Your task to perform on an android device: choose inbox layout in the gmail app Image 0: 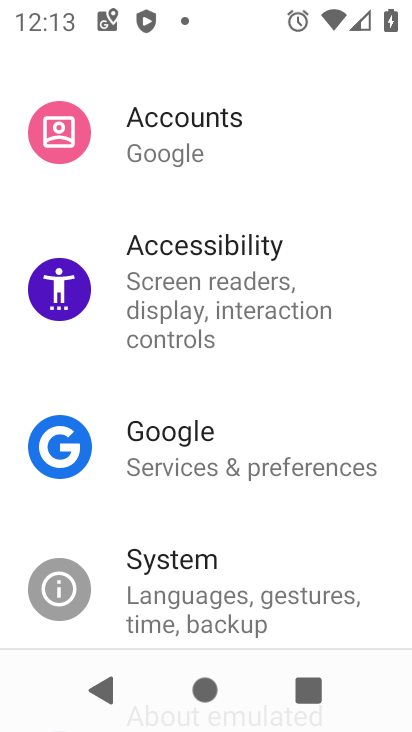
Step 0: press home button
Your task to perform on an android device: choose inbox layout in the gmail app Image 1: 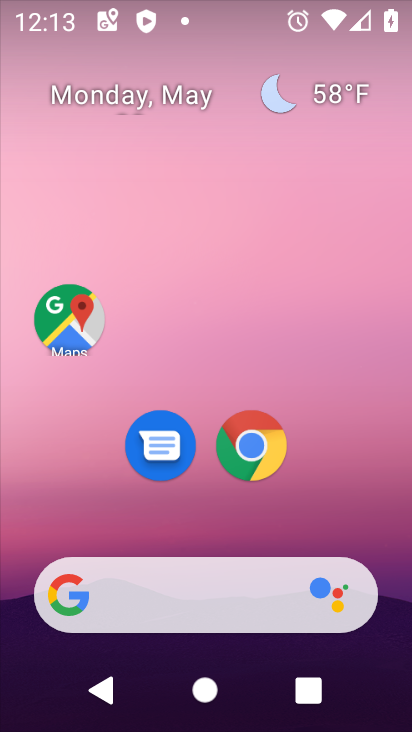
Step 1: drag from (200, 534) to (221, 17)
Your task to perform on an android device: choose inbox layout in the gmail app Image 2: 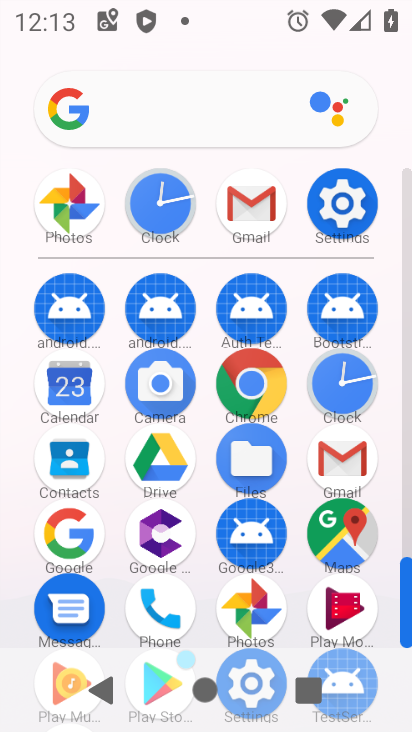
Step 2: click (246, 191)
Your task to perform on an android device: choose inbox layout in the gmail app Image 3: 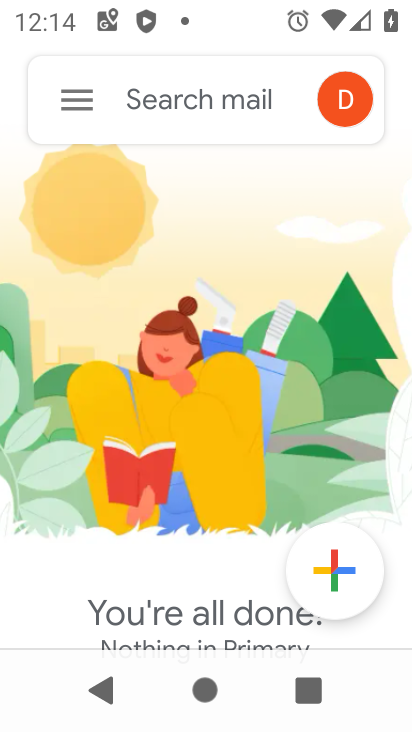
Step 3: click (83, 103)
Your task to perform on an android device: choose inbox layout in the gmail app Image 4: 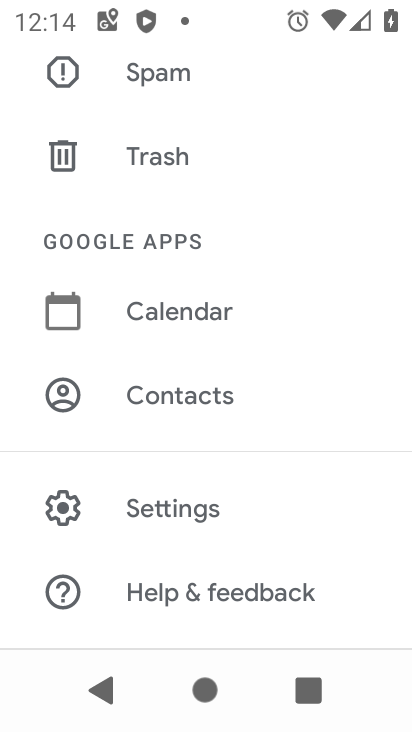
Step 4: click (115, 504)
Your task to perform on an android device: choose inbox layout in the gmail app Image 5: 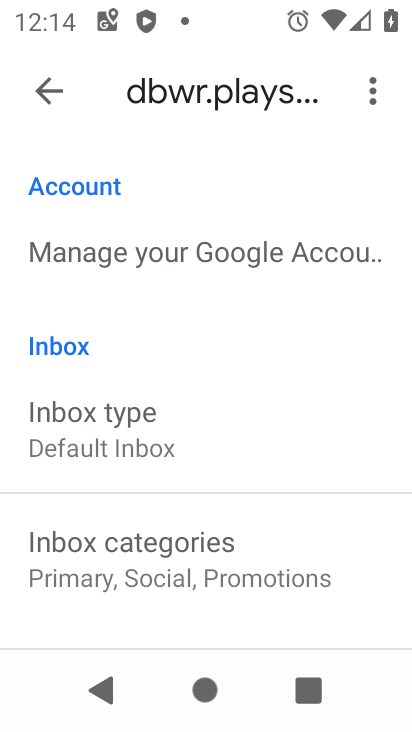
Step 5: click (201, 437)
Your task to perform on an android device: choose inbox layout in the gmail app Image 6: 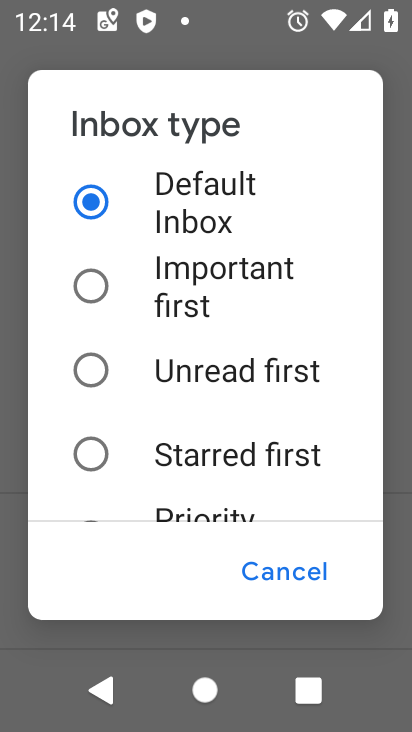
Step 6: click (101, 275)
Your task to perform on an android device: choose inbox layout in the gmail app Image 7: 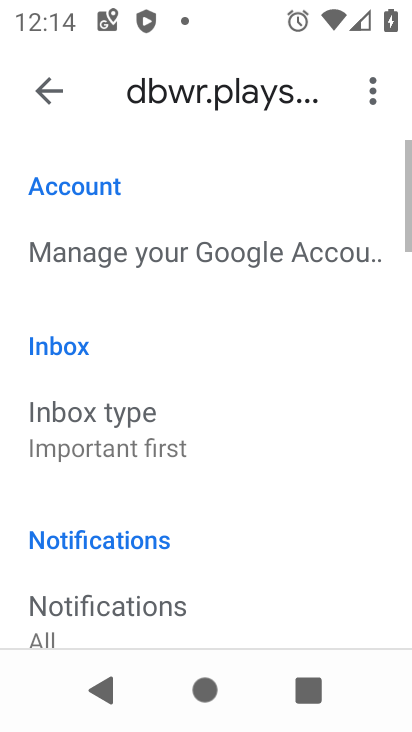
Step 7: task complete